Your task to perform on an android device: turn on sleep mode Image 0: 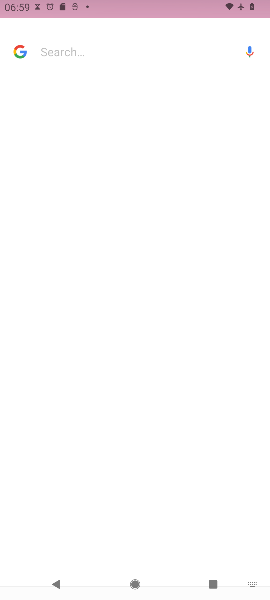
Step 0: press home button
Your task to perform on an android device: turn on sleep mode Image 1: 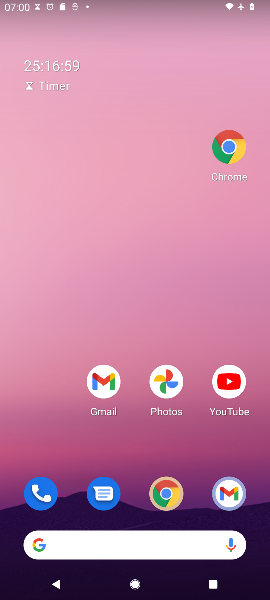
Step 1: drag from (128, 509) to (124, 81)
Your task to perform on an android device: turn on sleep mode Image 2: 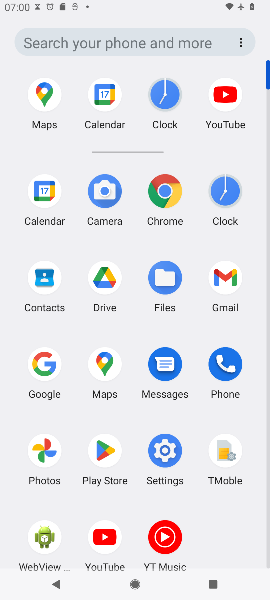
Step 2: click (169, 453)
Your task to perform on an android device: turn on sleep mode Image 3: 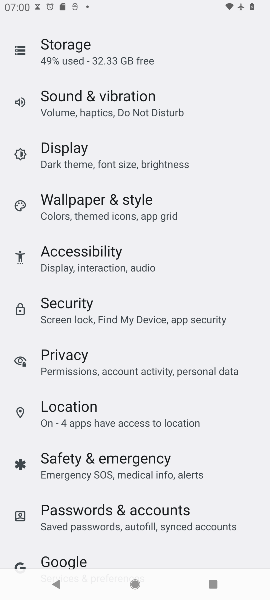
Step 3: click (76, 154)
Your task to perform on an android device: turn on sleep mode Image 4: 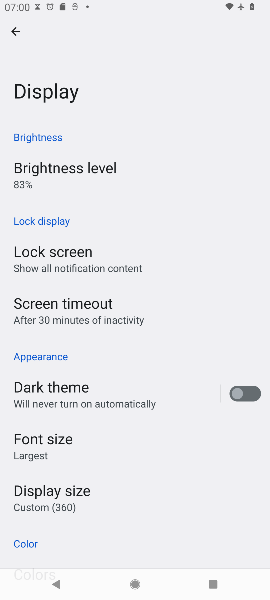
Step 4: task complete